Your task to perform on an android device: Open maps Image 0: 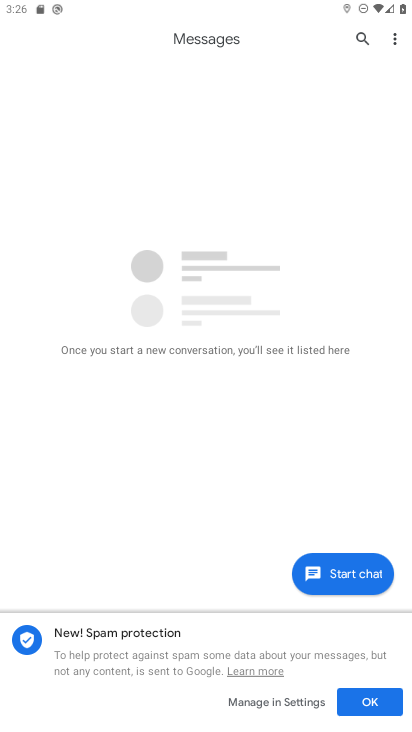
Step 0: press home button
Your task to perform on an android device: Open maps Image 1: 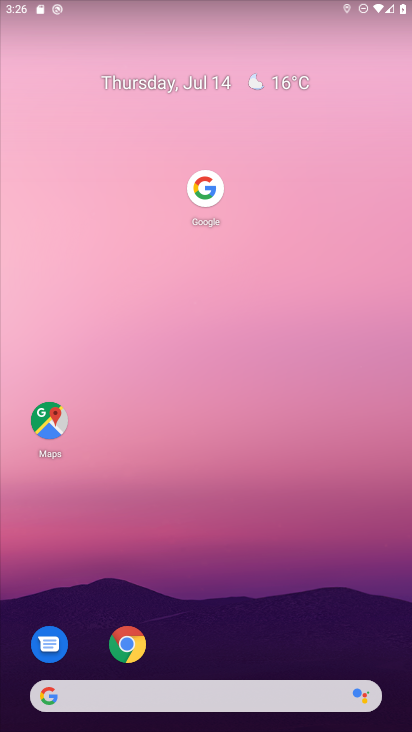
Step 1: click (47, 422)
Your task to perform on an android device: Open maps Image 2: 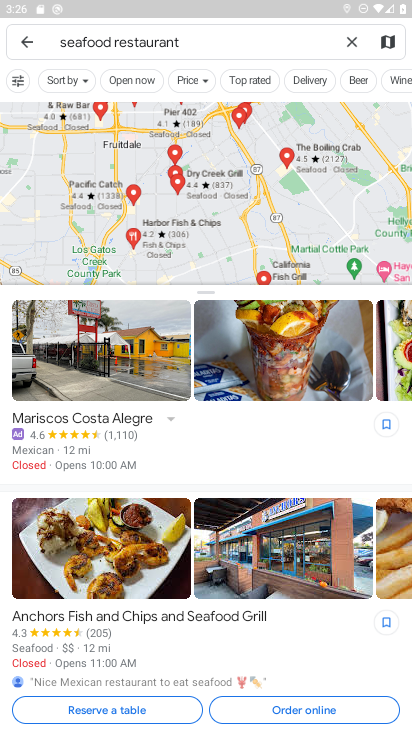
Step 2: task complete